Your task to perform on an android device: turn pop-ups off in chrome Image 0: 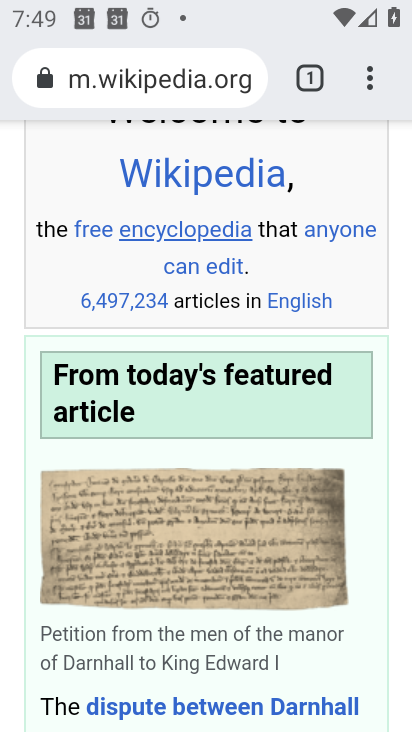
Step 0: drag from (370, 84) to (122, 628)
Your task to perform on an android device: turn pop-ups off in chrome Image 1: 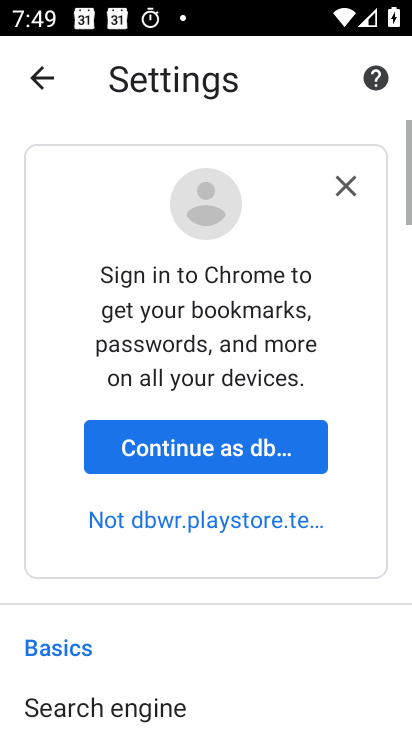
Step 1: drag from (235, 660) to (190, 117)
Your task to perform on an android device: turn pop-ups off in chrome Image 2: 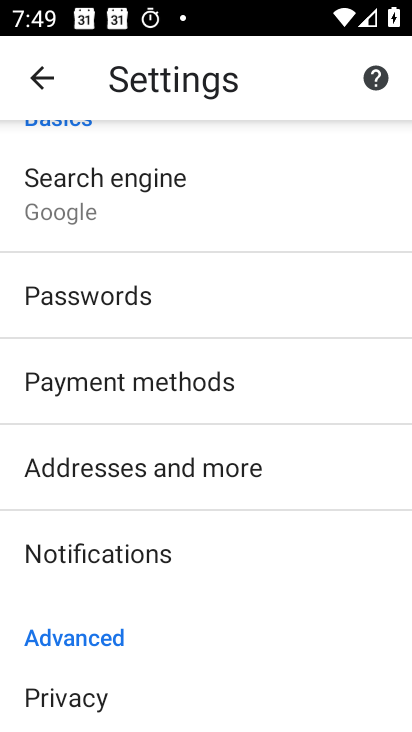
Step 2: drag from (183, 621) to (133, 242)
Your task to perform on an android device: turn pop-ups off in chrome Image 3: 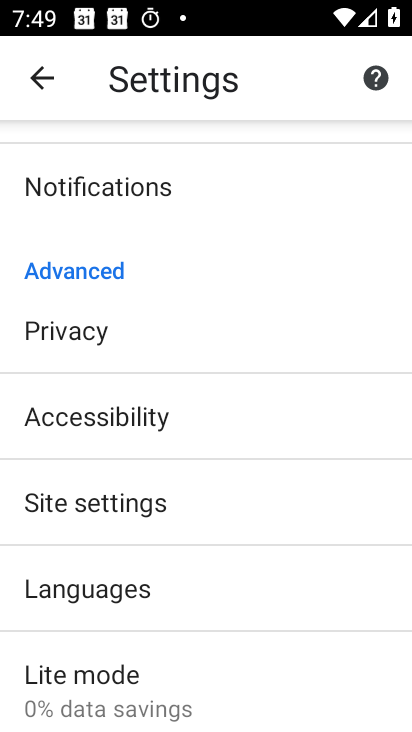
Step 3: click (100, 517)
Your task to perform on an android device: turn pop-ups off in chrome Image 4: 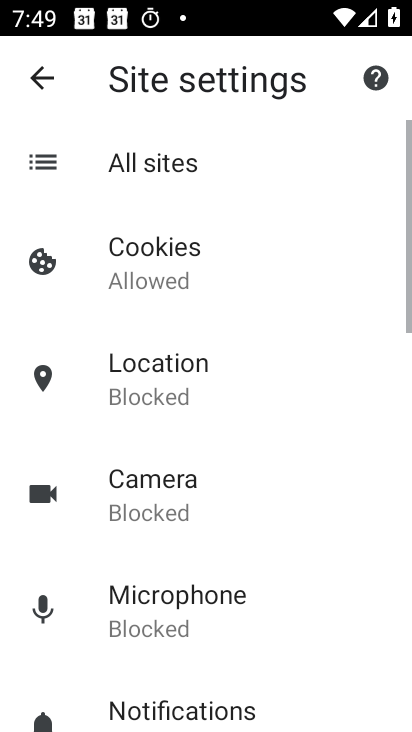
Step 4: drag from (312, 640) to (270, 256)
Your task to perform on an android device: turn pop-ups off in chrome Image 5: 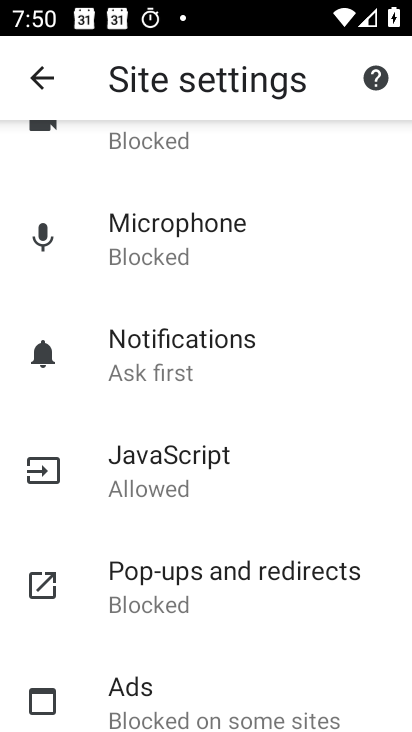
Step 5: click (192, 571)
Your task to perform on an android device: turn pop-ups off in chrome Image 6: 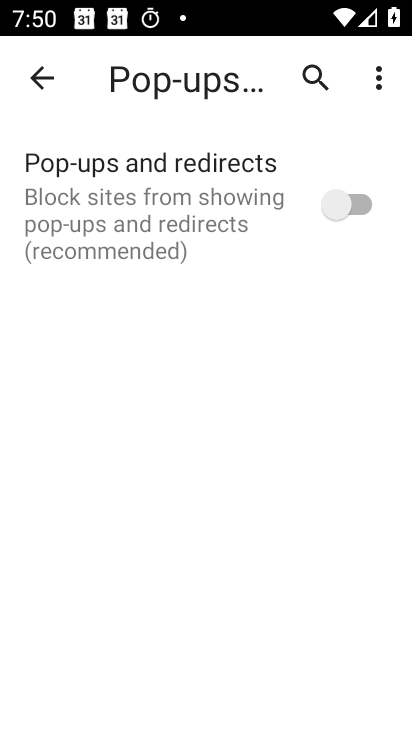
Step 6: task complete